Your task to perform on an android device: empty trash in the gmail app Image 0: 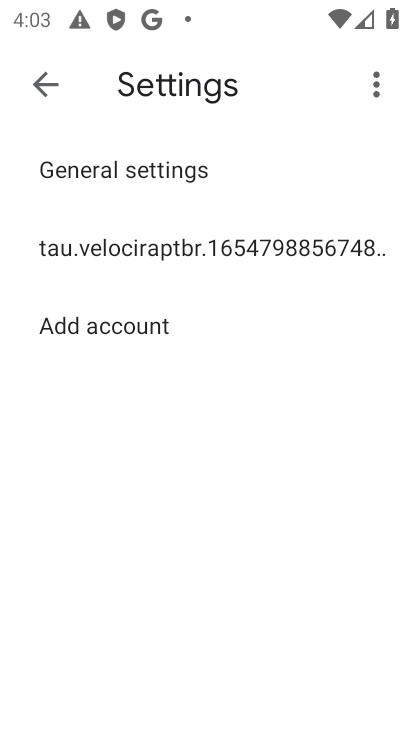
Step 0: press home button
Your task to perform on an android device: empty trash in the gmail app Image 1: 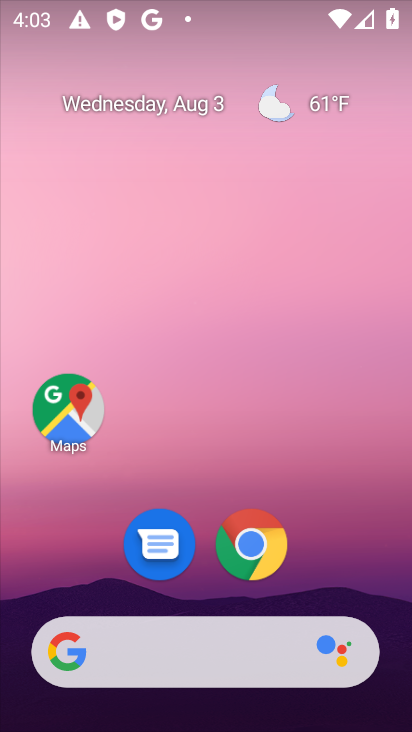
Step 1: drag from (314, 543) to (261, 74)
Your task to perform on an android device: empty trash in the gmail app Image 2: 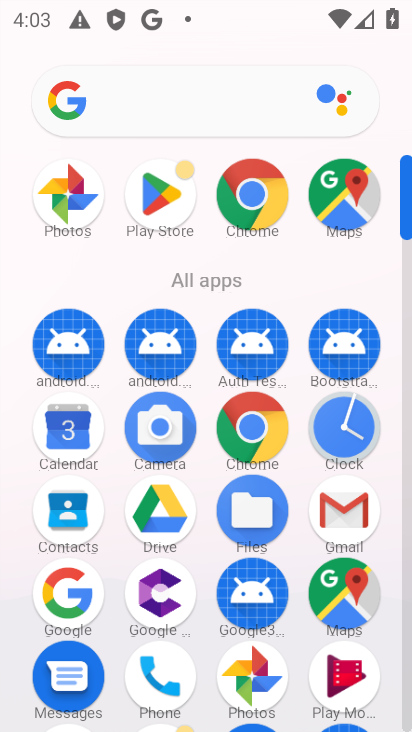
Step 2: click (350, 508)
Your task to perform on an android device: empty trash in the gmail app Image 3: 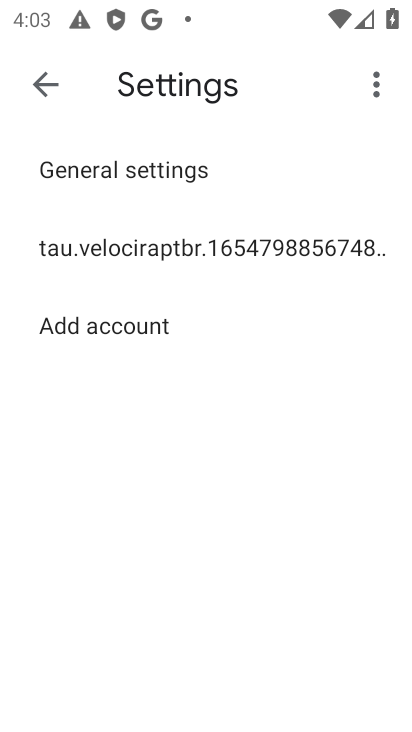
Step 3: click (43, 81)
Your task to perform on an android device: empty trash in the gmail app Image 4: 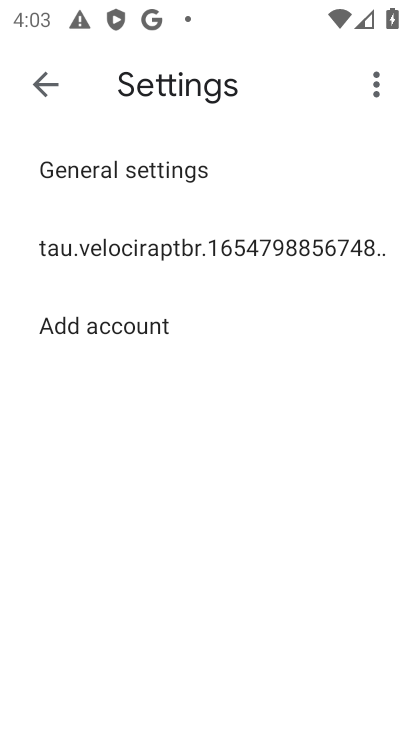
Step 4: click (43, 81)
Your task to perform on an android device: empty trash in the gmail app Image 5: 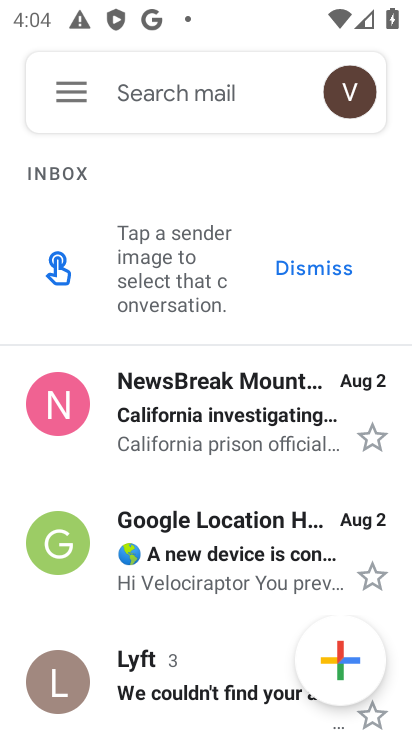
Step 5: click (76, 93)
Your task to perform on an android device: empty trash in the gmail app Image 6: 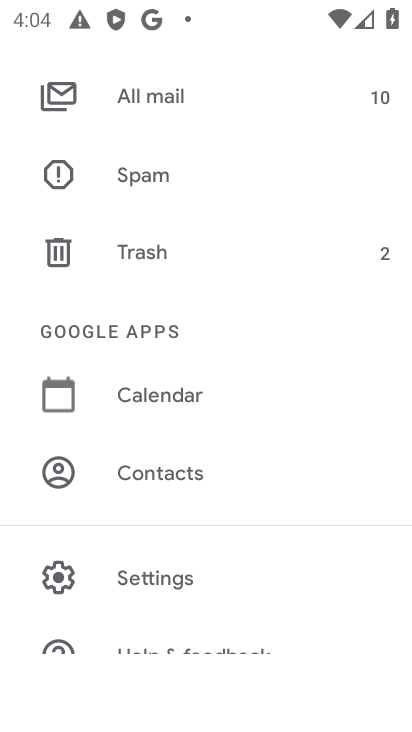
Step 6: click (145, 259)
Your task to perform on an android device: empty trash in the gmail app Image 7: 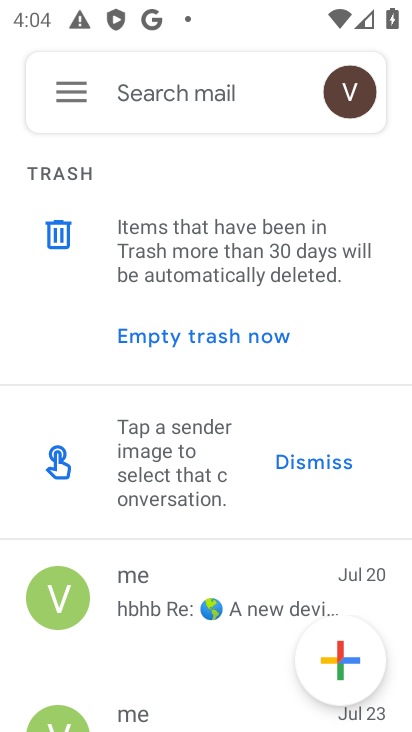
Step 7: click (59, 98)
Your task to perform on an android device: empty trash in the gmail app Image 8: 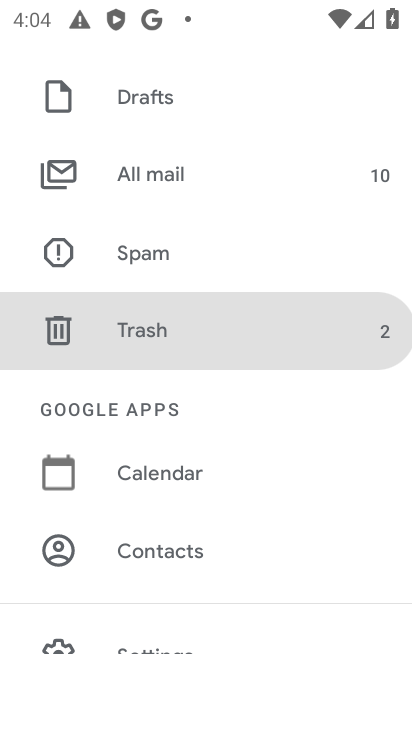
Step 8: click (131, 345)
Your task to perform on an android device: empty trash in the gmail app Image 9: 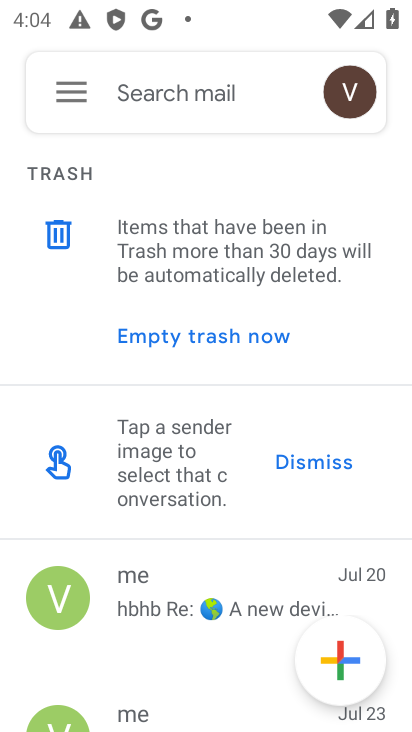
Step 9: click (194, 334)
Your task to perform on an android device: empty trash in the gmail app Image 10: 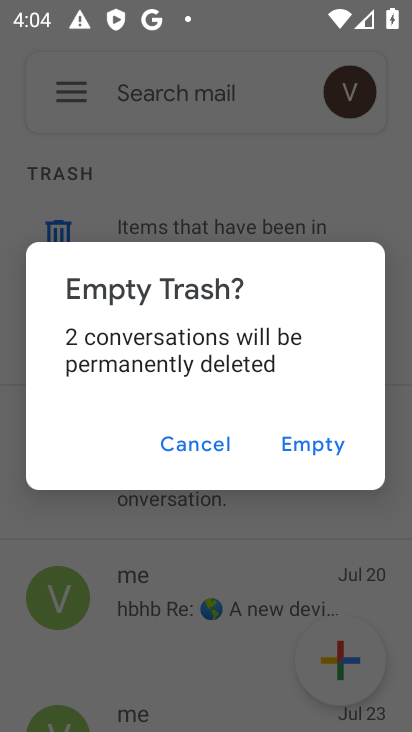
Step 10: click (317, 449)
Your task to perform on an android device: empty trash in the gmail app Image 11: 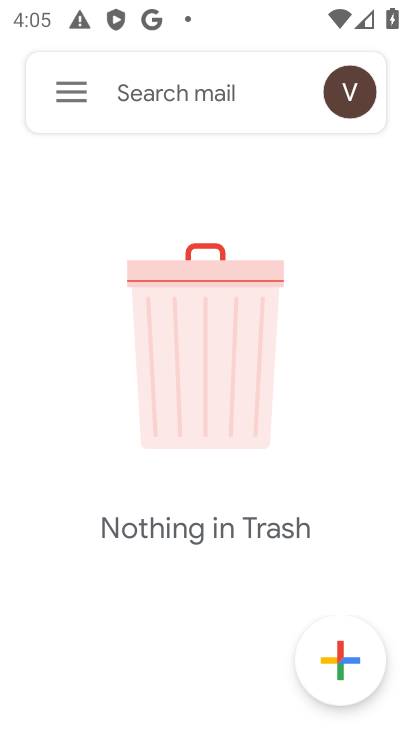
Step 11: task complete